Your task to perform on an android device: turn on priority inbox in the gmail app Image 0: 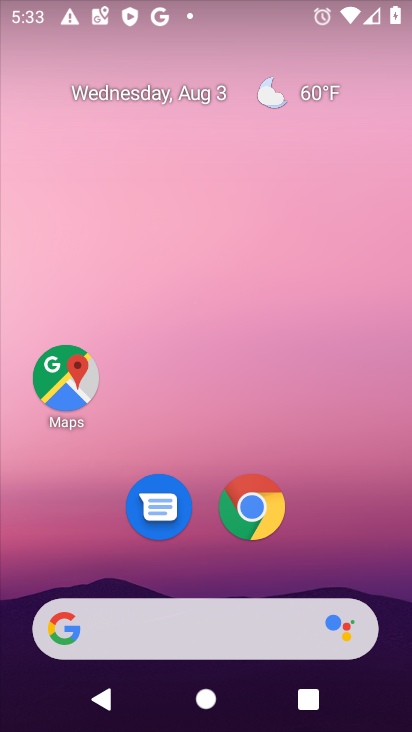
Step 0: drag from (343, 458) to (323, 0)
Your task to perform on an android device: turn on priority inbox in the gmail app Image 1: 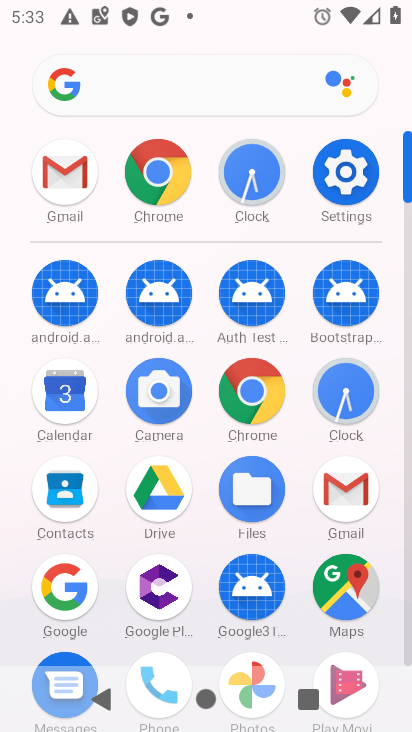
Step 1: click (66, 177)
Your task to perform on an android device: turn on priority inbox in the gmail app Image 2: 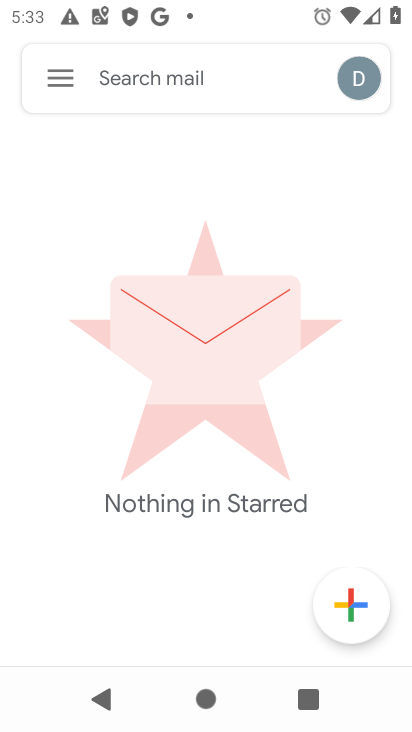
Step 2: click (68, 65)
Your task to perform on an android device: turn on priority inbox in the gmail app Image 3: 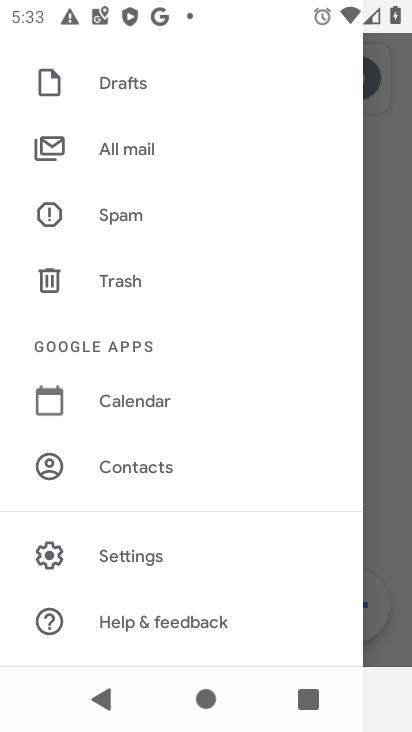
Step 3: click (133, 550)
Your task to perform on an android device: turn on priority inbox in the gmail app Image 4: 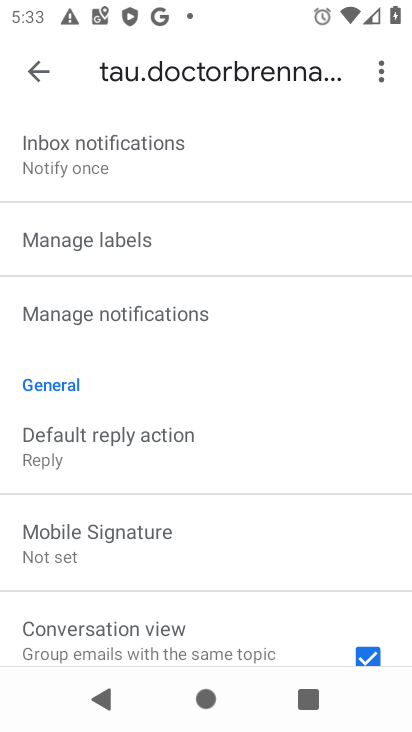
Step 4: drag from (254, 251) to (253, 678)
Your task to perform on an android device: turn on priority inbox in the gmail app Image 5: 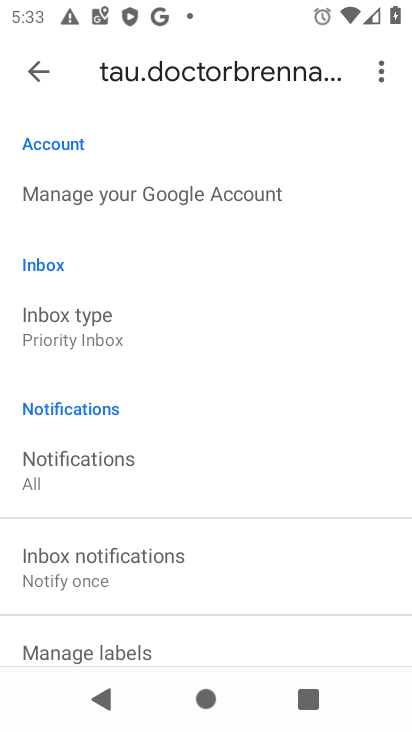
Step 5: click (265, 589)
Your task to perform on an android device: turn on priority inbox in the gmail app Image 6: 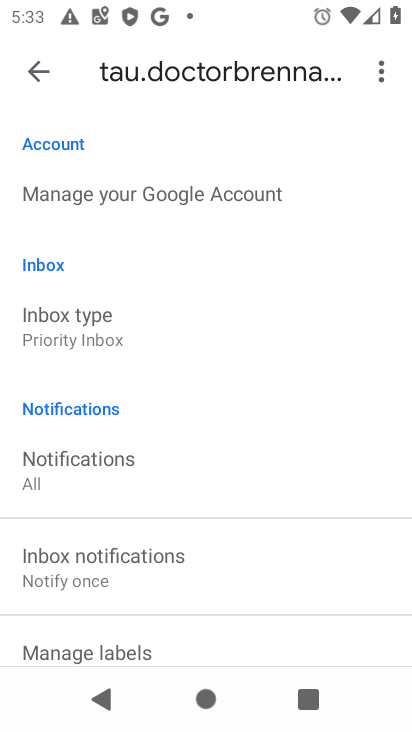
Step 6: click (104, 315)
Your task to perform on an android device: turn on priority inbox in the gmail app Image 7: 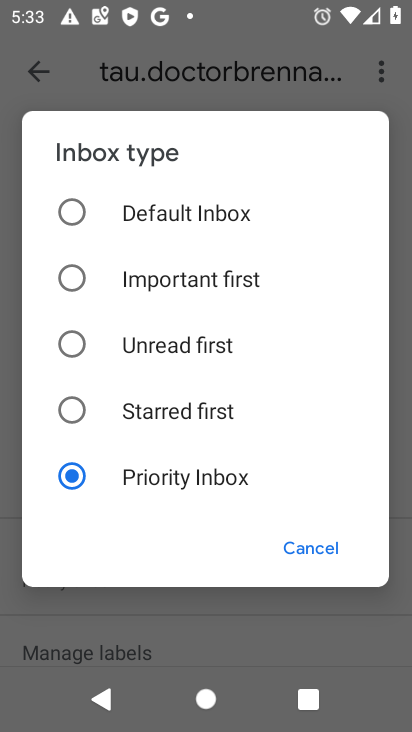
Step 7: task complete